Your task to perform on an android device: Open the stopwatch Image 0: 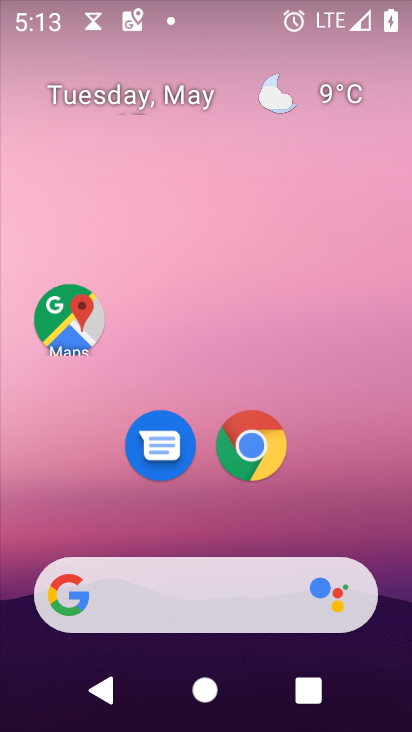
Step 0: drag from (291, 548) to (276, 44)
Your task to perform on an android device: Open the stopwatch Image 1: 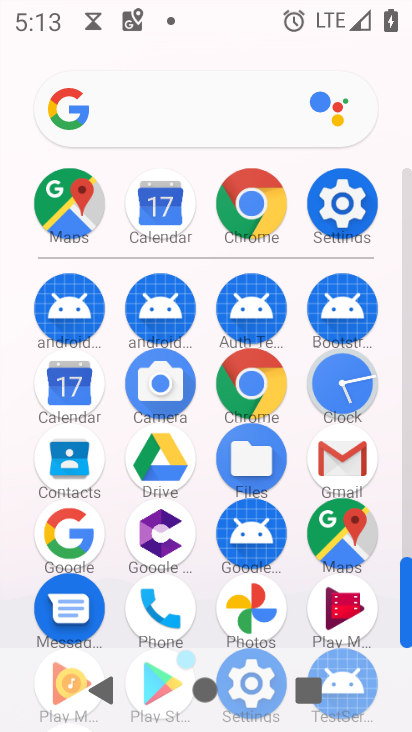
Step 1: click (351, 381)
Your task to perform on an android device: Open the stopwatch Image 2: 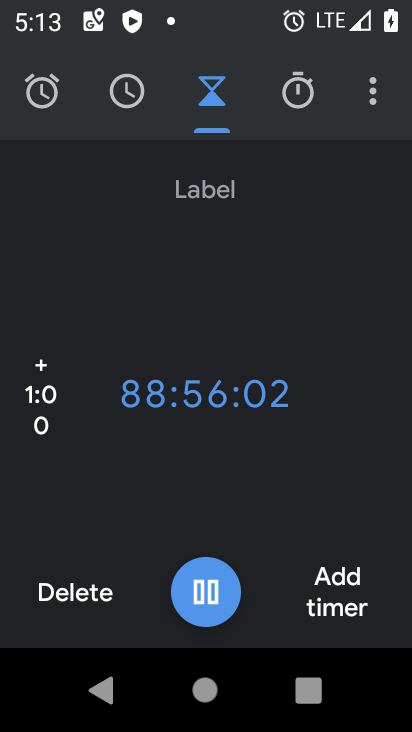
Step 2: click (299, 92)
Your task to perform on an android device: Open the stopwatch Image 3: 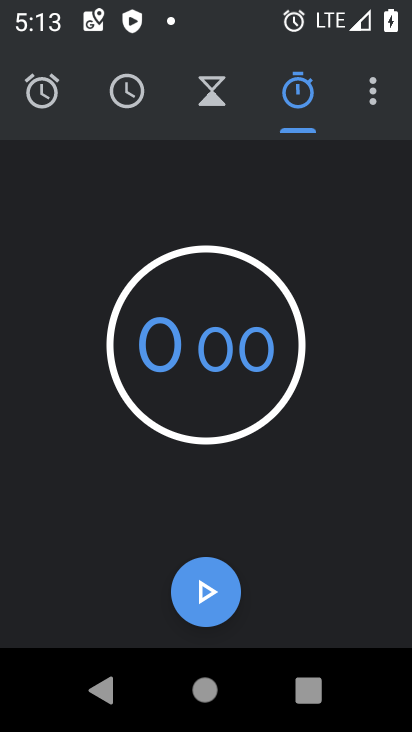
Step 3: click (202, 586)
Your task to perform on an android device: Open the stopwatch Image 4: 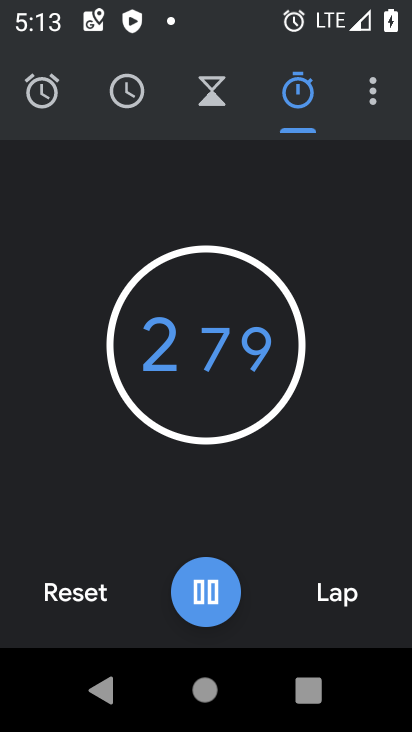
Step 4: task complete